Your task to perform on an android device: delete the emails in spam in the gmail app Image 0: 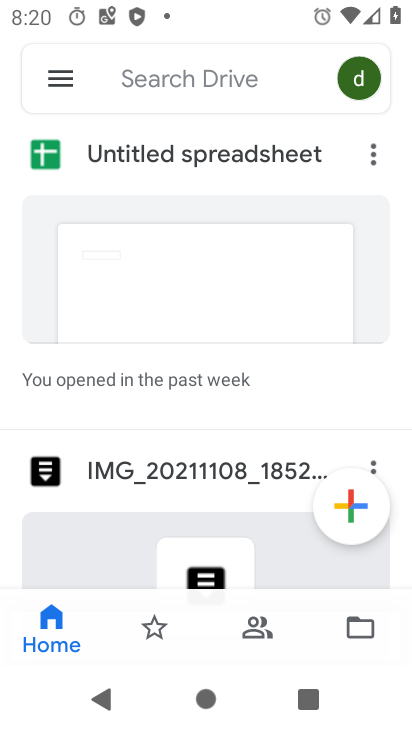
Step 0: press back button
Your task to perform on an android device: delete the emails in spam in the gmail app Image 1: 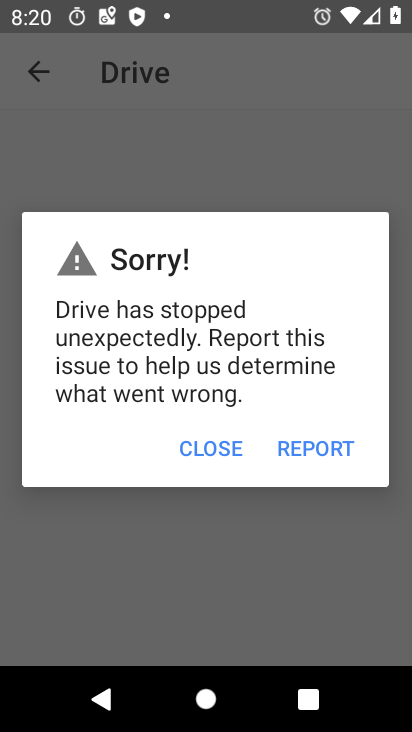
Step 1: press home button
Your task to perform on an android device: delete the emails in spam in the gmail app Image 2: 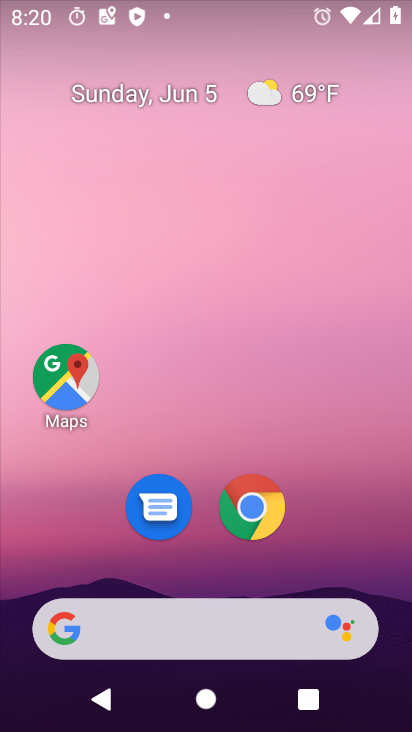
Step 2: drag from (336, 551) to (214, 40)
Your task to perform on an android device: delete the emails in spam in the gmail app Image 3: 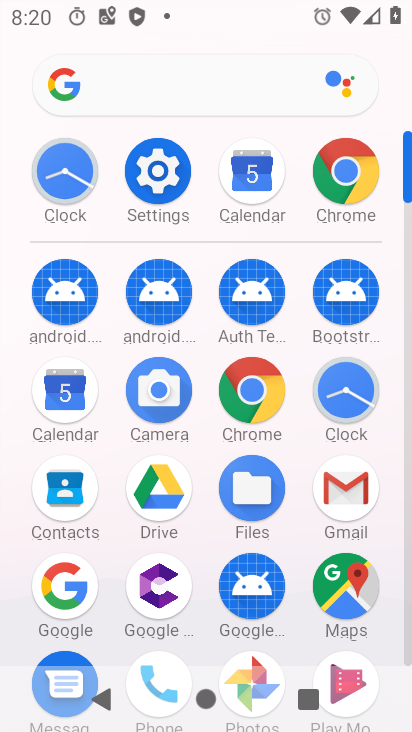
Step 3: click (345, 486)
Your task to perform on an android device: delete the emails in spam in the gmail app Image 4: 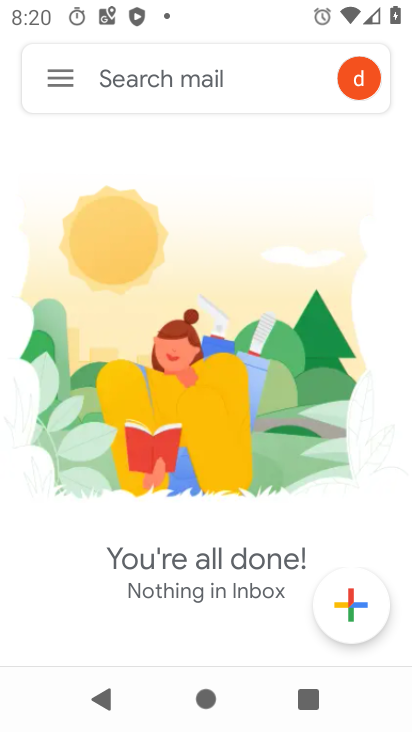
Step 4: click (58, 83)
Your task to perform on an android device: delete the emails in spam in the gmail app Image 5: 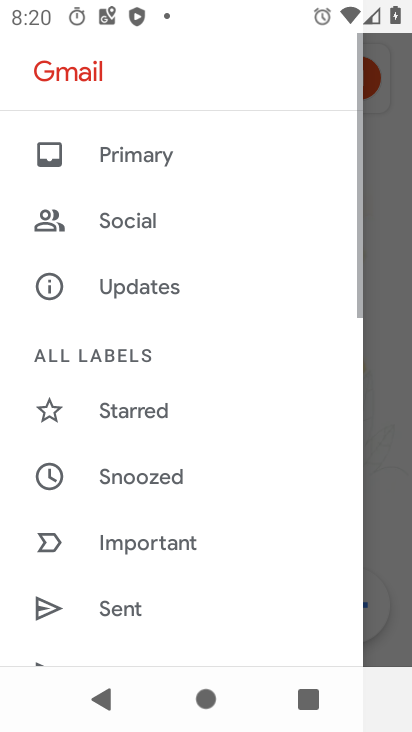
Step 5: drag from (242, 555) to (232, 146)
Your task to perform on an android device: delete the emails in spam in the gmail app Image 6: 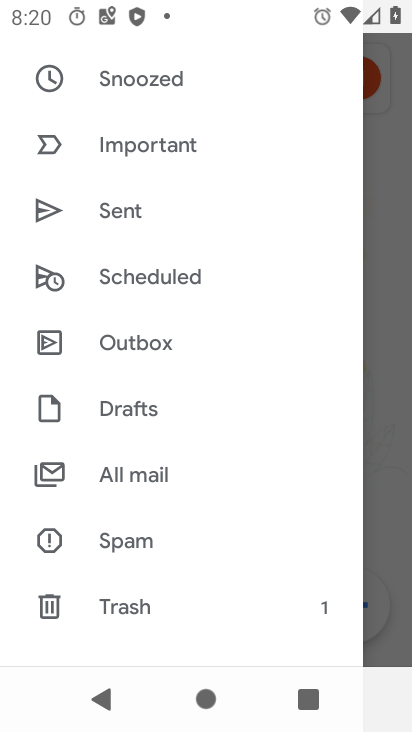
Step 6: drag from (217, 517) to (244, 109)
Your task to perform on an android device: delete the emails in spam in the gmail app Image 7: 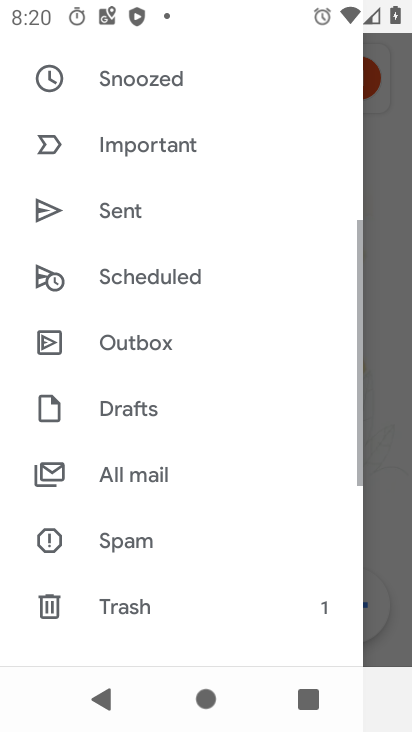
Step 7: drag from (233, 550) to (277, 163)
Your task to perform on an android device: delete the emails in spam in the gmail app Image 8: 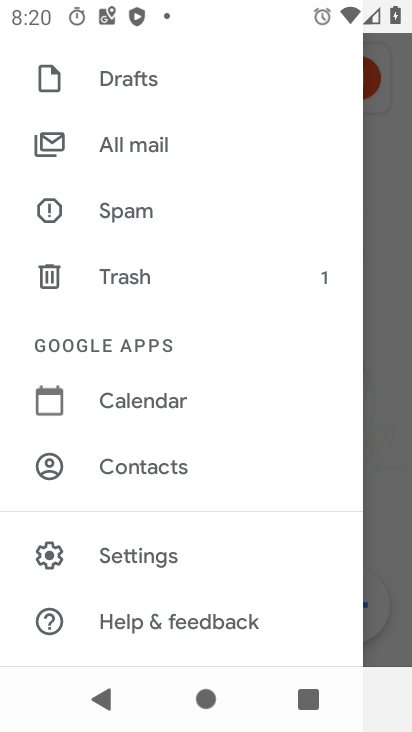
Step 8: click (143, 210)
Your task to perform on an android device: delete the emails in spam in the gmail app Image 9: 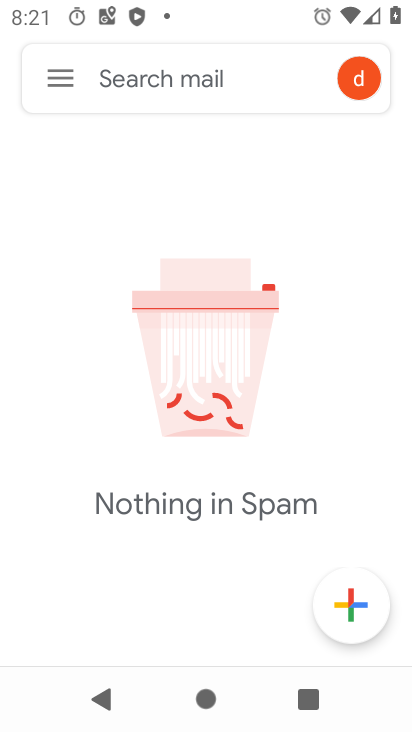
Step 9: task complete